Your task to perform on an android device: open chrome and create a bookmark for the current page Image 0: 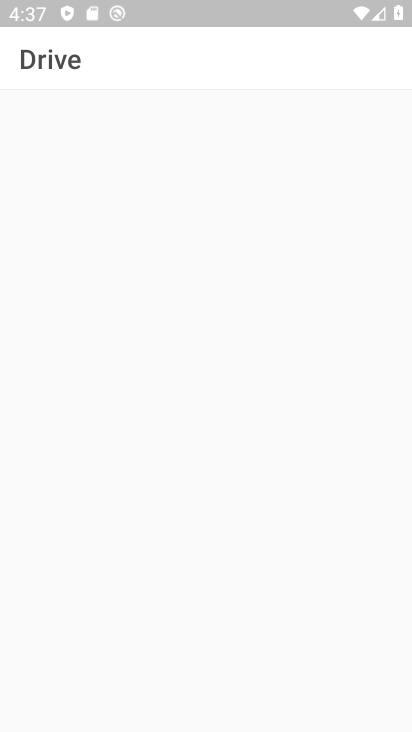
Step 0: press home button
Your task to perform on an android device: open chrome and create a bookmark for the current page Image 1: 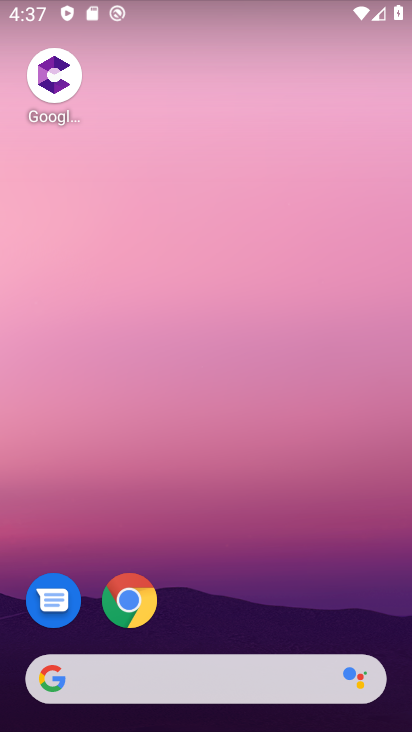
Step 1: click (128, 599)
Your task to perform on an android device: open chrome and create a bookmark for the current page Image 2: 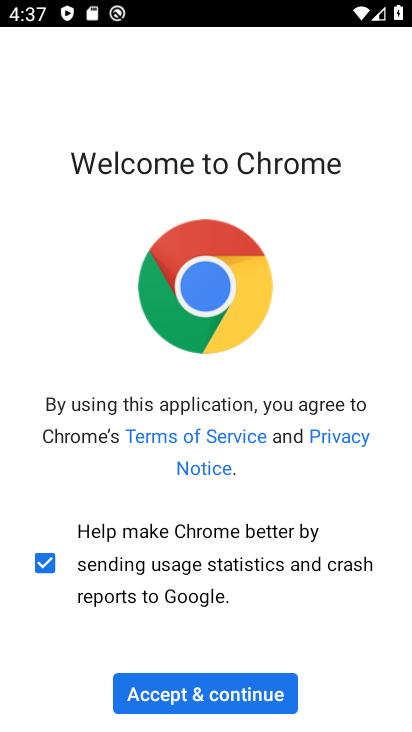
Step 2: click (218, 690)
Your task to perform on an android device: open chrome and create a bookmark for the current page Image 3: 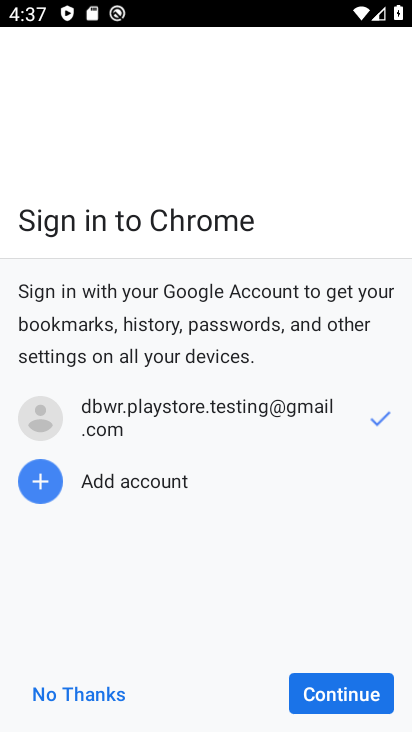
Step 3: click (330, 690)
Your task to perform on an android device: open chrome and create a bookmark for the current page Image 4: 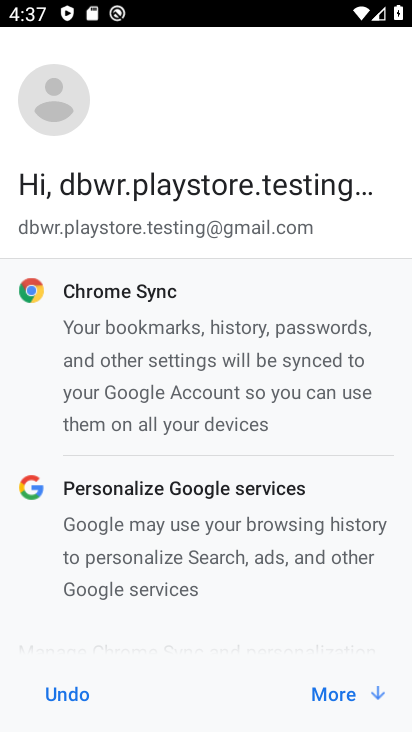
Step 4: click (330, 690)
Your task to perform on an android device: open chrome and create a bookmark for the current page Image 5: 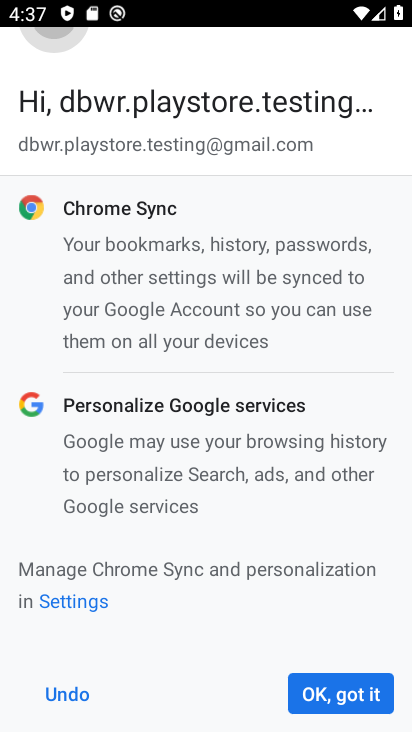
Step 5: click (330, 690)
Your task to perform on an android device: open chrome and create a bookmark for the current page Image 6: 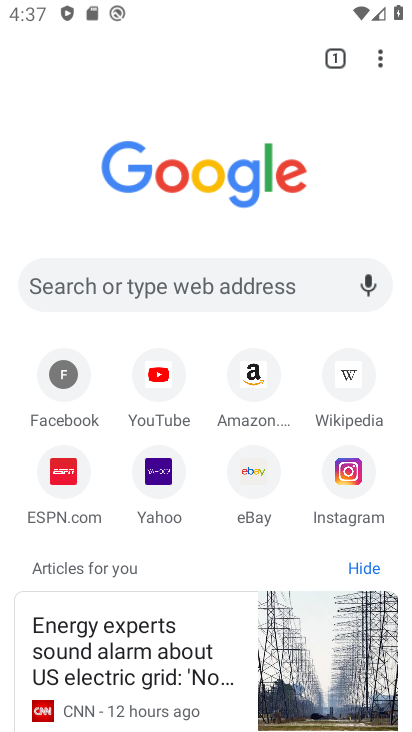
Step 6: click (380, 55)
Your task to perform on an android device: open chrome and create a bookmark for the current page Image 7: 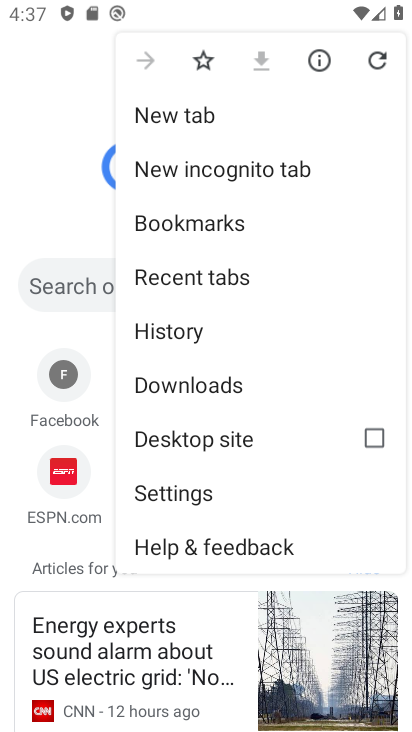
Step 7: click (204, 61)
Your task to perform on an android device: open chrome and create a bookmark for the current page Image 8: 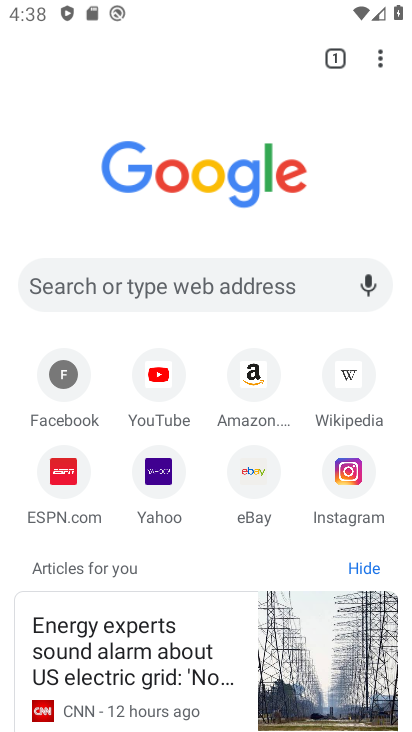
Step 8: task complete